Your task to perform on an android device: Open wifi settings Image 0: 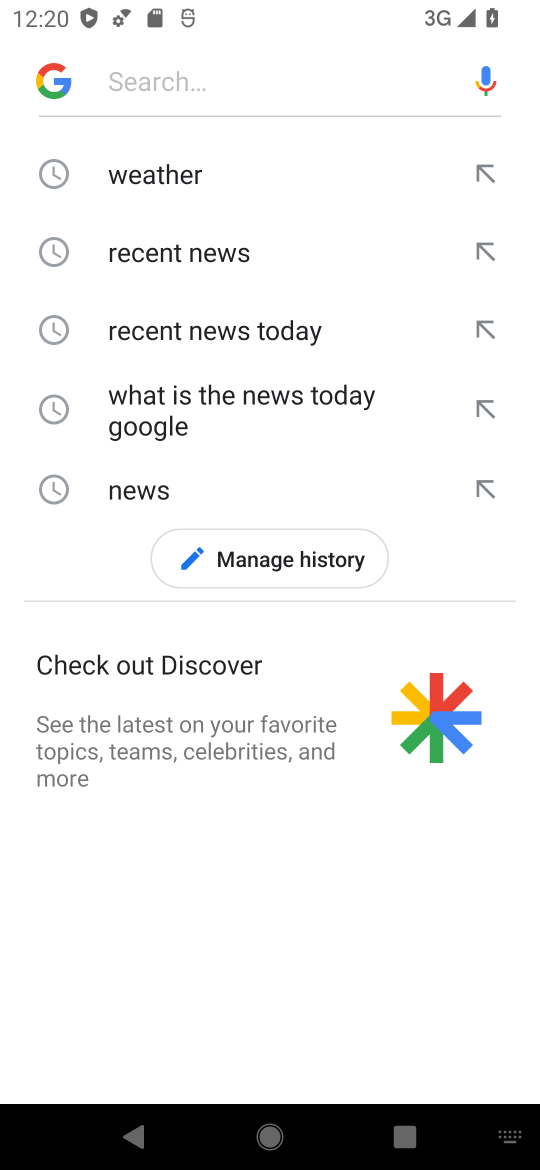
Step 0: press home button
Your task to perform on an android device: Open wifi settings Image 1: 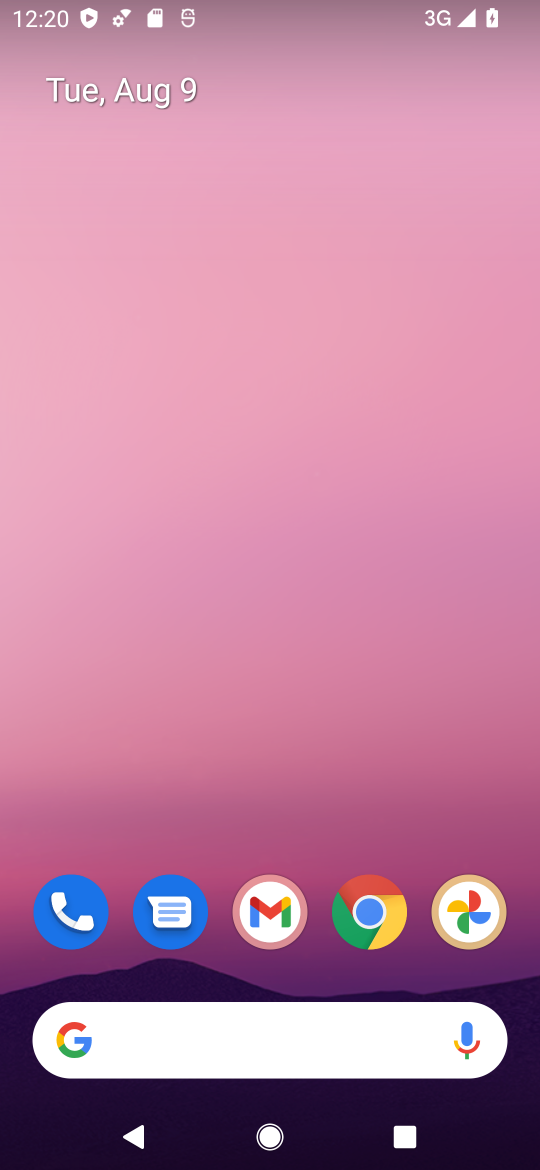
Step 1: drag from (318, 992) to (306, 403)
Your task to perform on an android device: Open wifi settings Image 2: 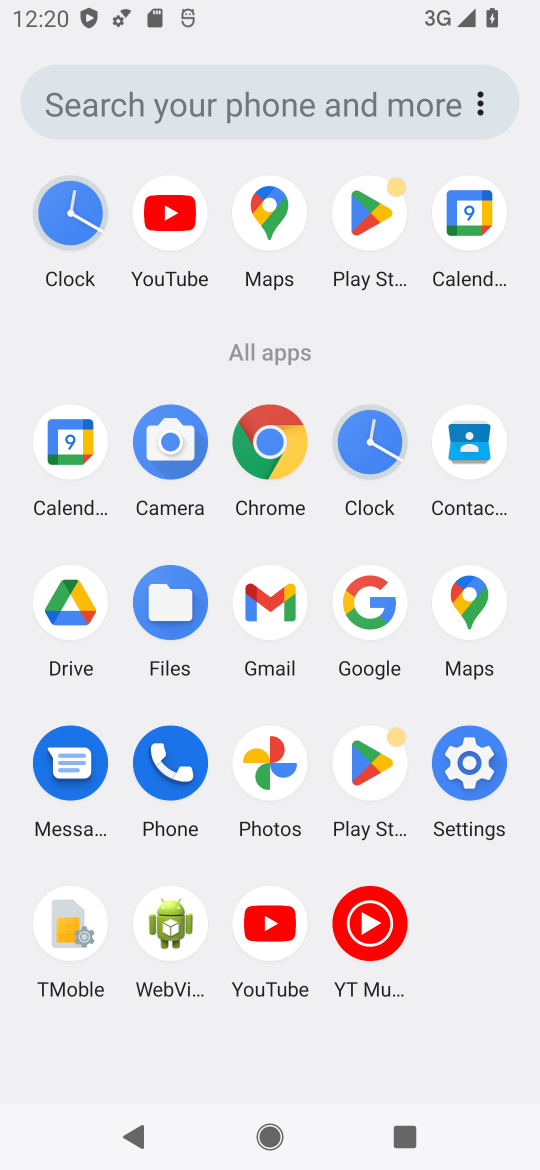
Step 2: click (476, 765)
Your task to perform on an android device: Open wifi settings Image 3: 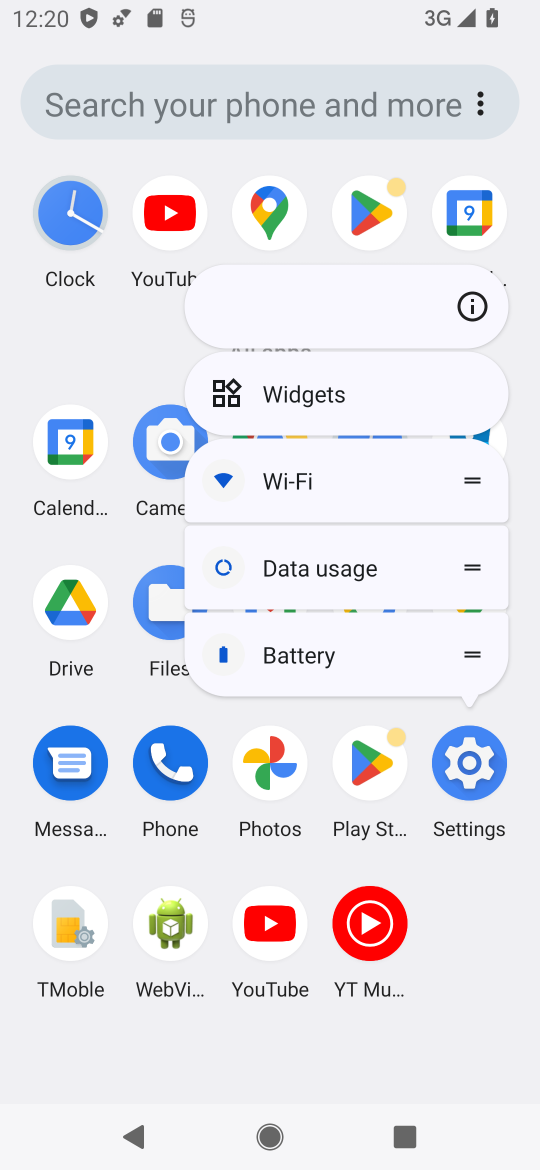
Step 3: click (468, 780)
Your task to perform on an android device: Open wifi settings Image 4: 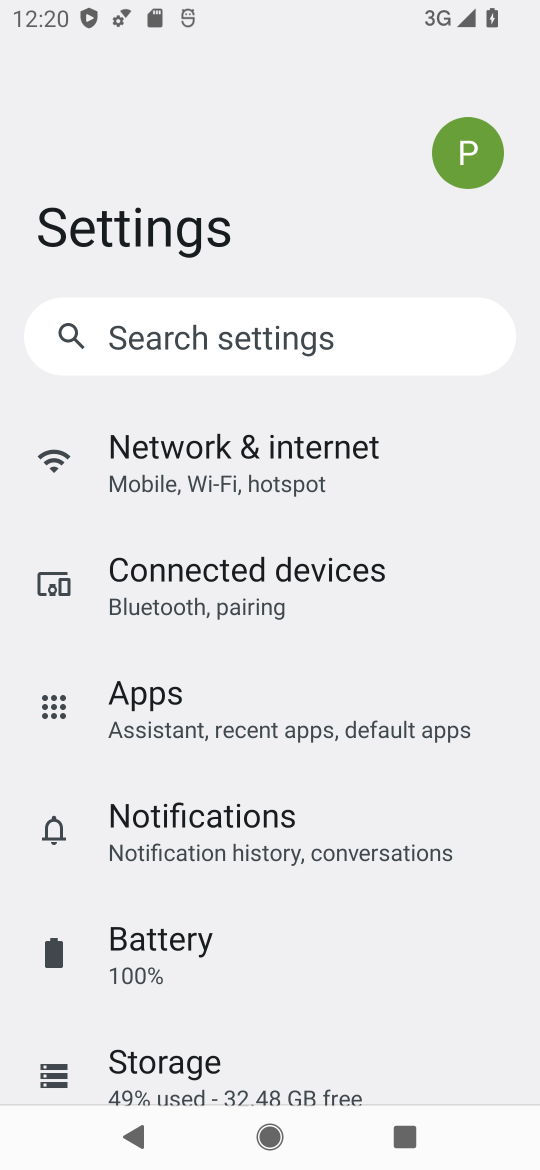
Step 4: click (259, 458)
Your task to perform on an android device: Open wifi settings Image 5: 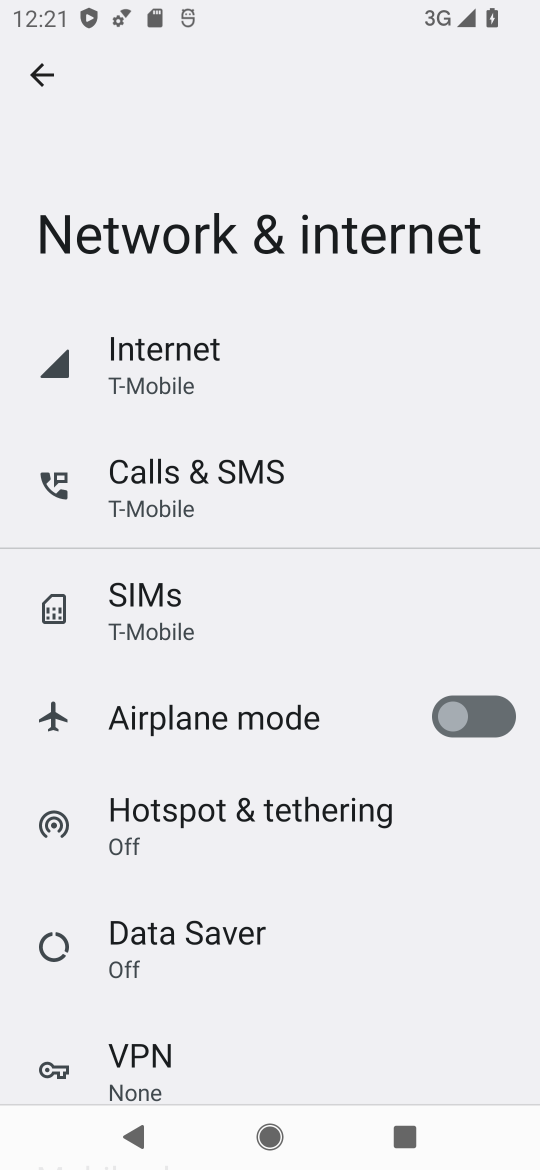
Step 5: click (173, 373)
Your task to perform on an android device: Open wifi settings Image 6: 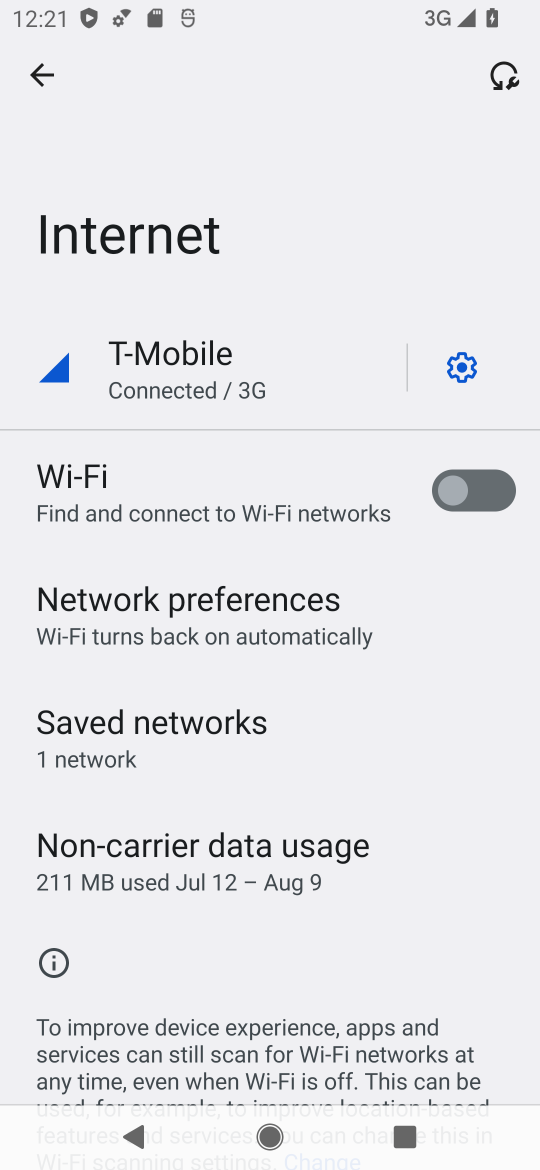
Step 6: click (114, 502)
Your task to perform on an android device: Open wifi settings Image 7: 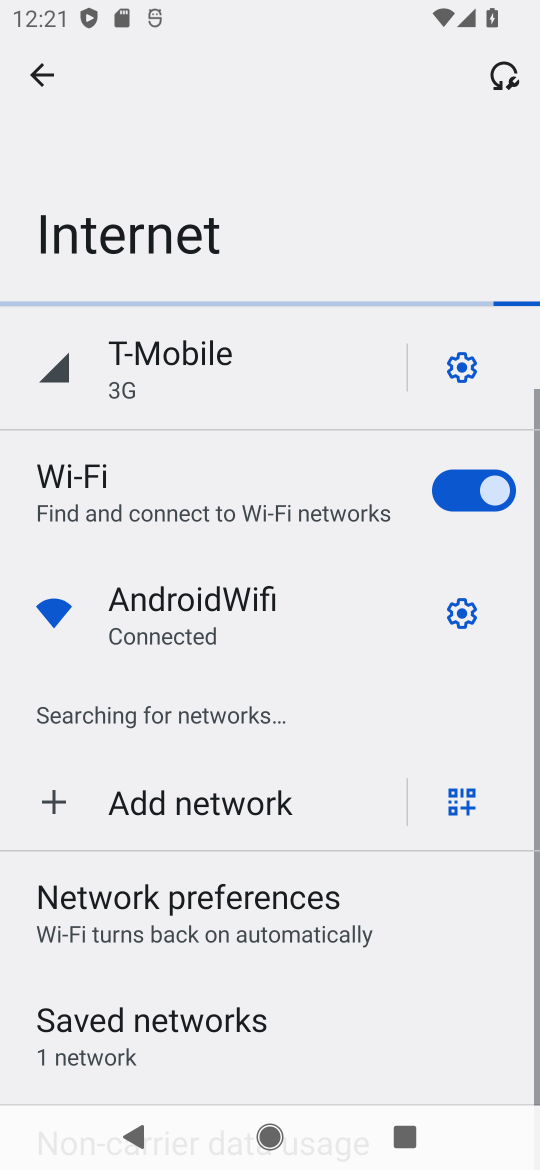
Step 7: click (459, 617)
Your task to perform on an android device: Open wifi settings Image 8: 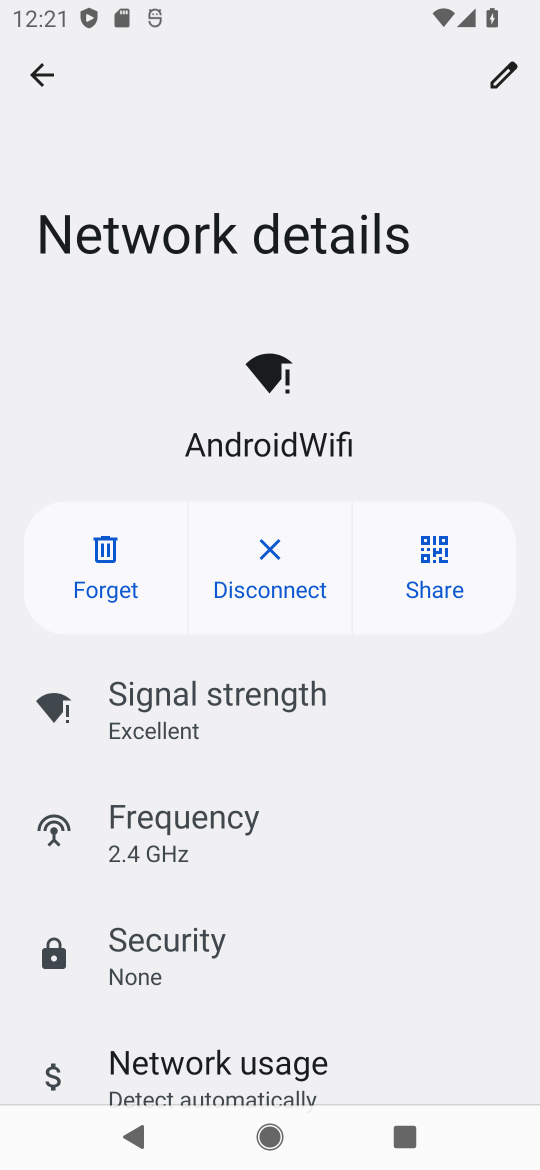
Step 8: task complete